Your task to perform on an android device: Open internet settings Image 0: 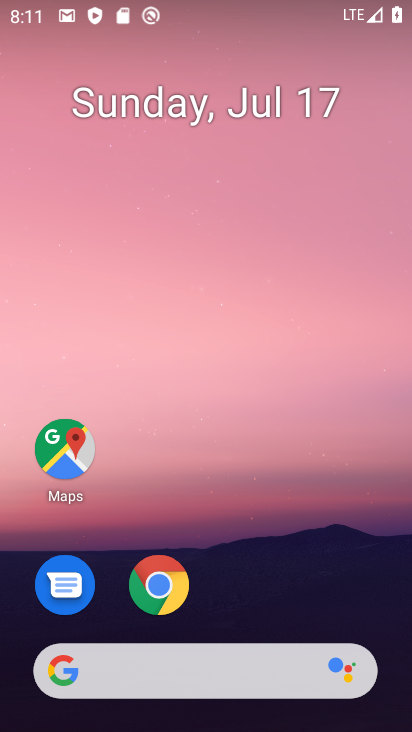
Step 0: drag from (237, 670) to (340, 86)
Your task to perform on an android device: Open internet settings Image 1: 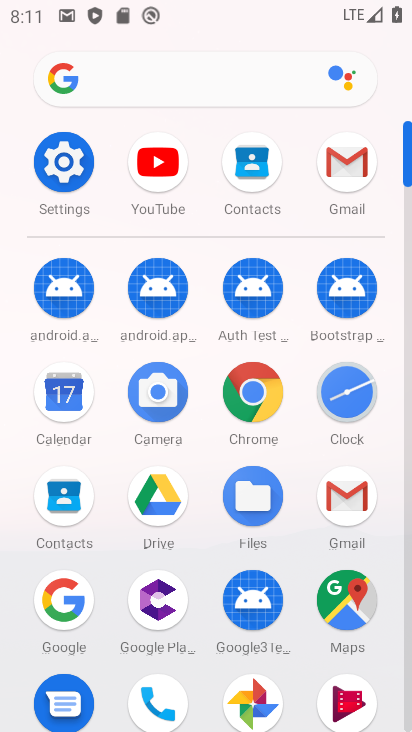
Step 1: click (73, 162)
Your task to perform on an android device: Open internet settings Image 2: 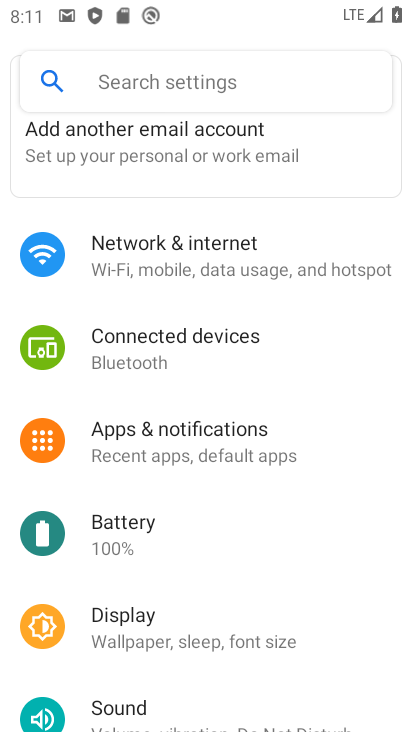
Step 2: click (199, 254)
Your task to perform on an android device: Open internet settings Image 3: 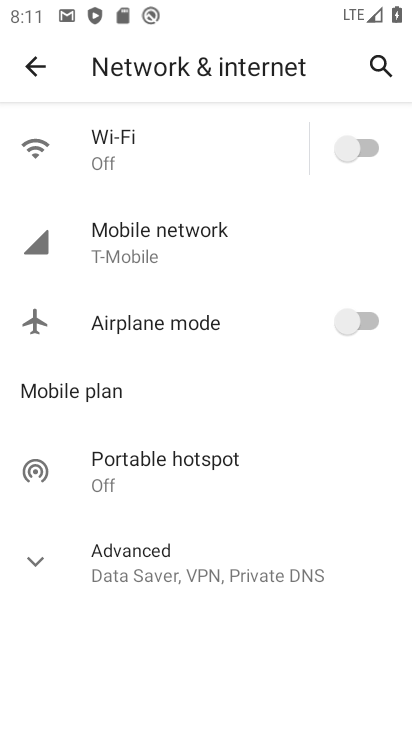
Step 3: task complete